Your task to perform on an android device: See recent photos Image 0: 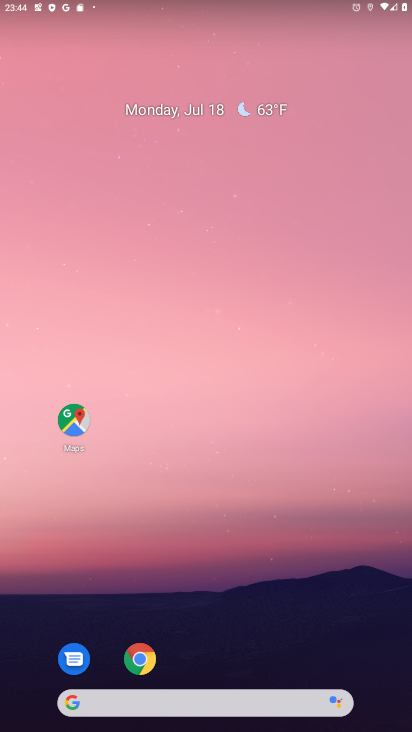
Step 0: press home button
Your task to perform on an android device: See recent photos Image 1: 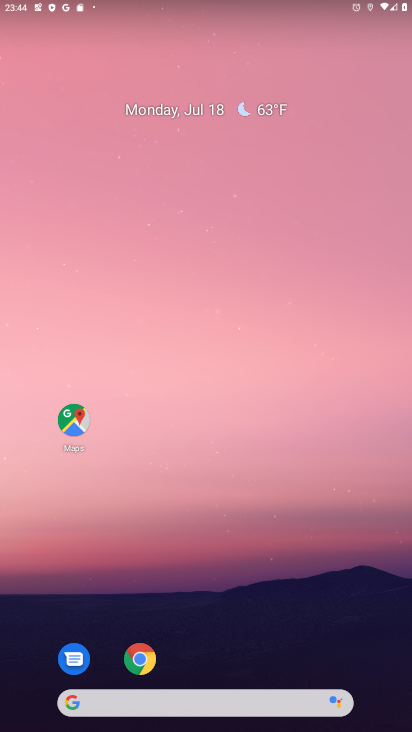
Step 1: click (202, 0)
Your task to perform on an android device: See recent photos Image 2: 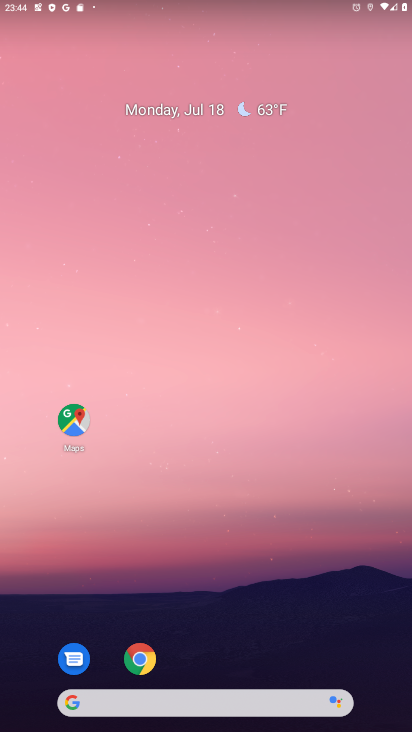
Step 2: drag from (292, 635) to (253, 0)
Your task to perform on an android device: See recent photos Image 3: 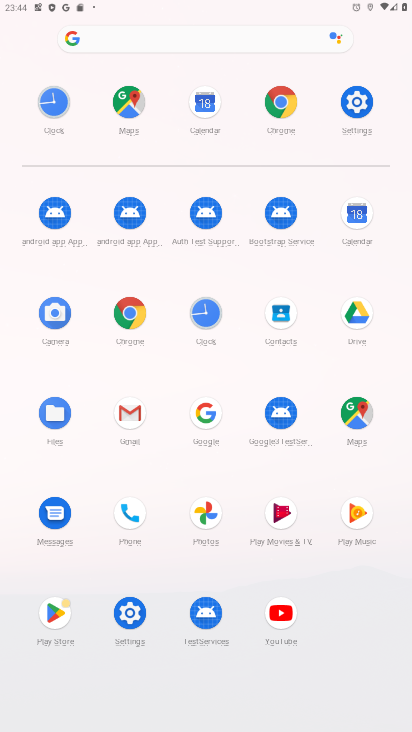
Step 3: click (197, 509)
Your task to perform on an android device: See recent photos Image 4: 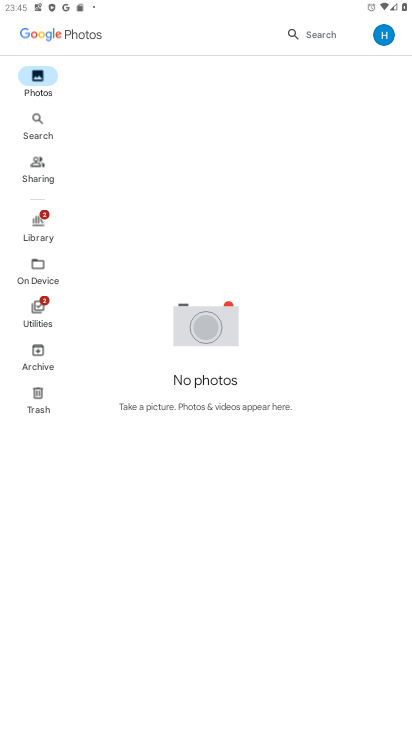
Step 4: task complete